Your task to perform on an android device: Do I have any events this weekend? Image 0: 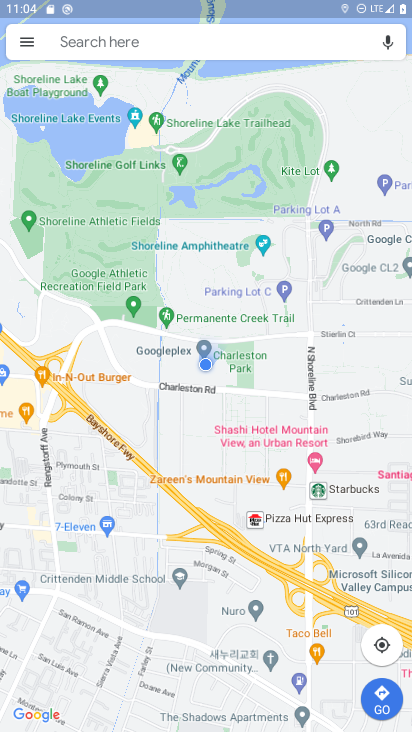
Step 0: press home button
Your task to perform on an android device: Do I have any events this weekend? Image 1: 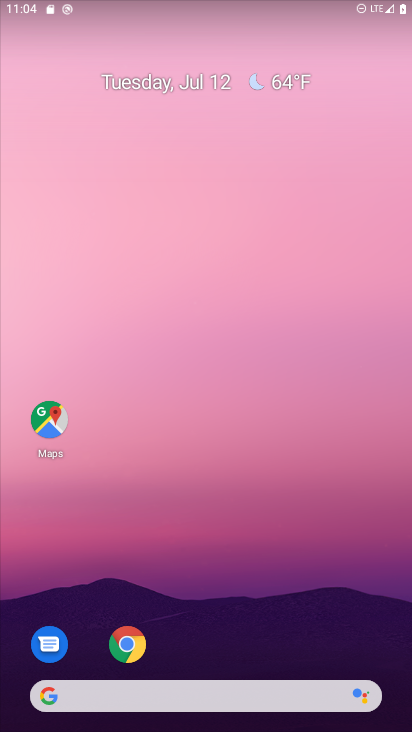
Step 1: drag from (297, 627) to (230, 131)
Your task to perform on an android device: Do I have any events this weekend? Image 2: 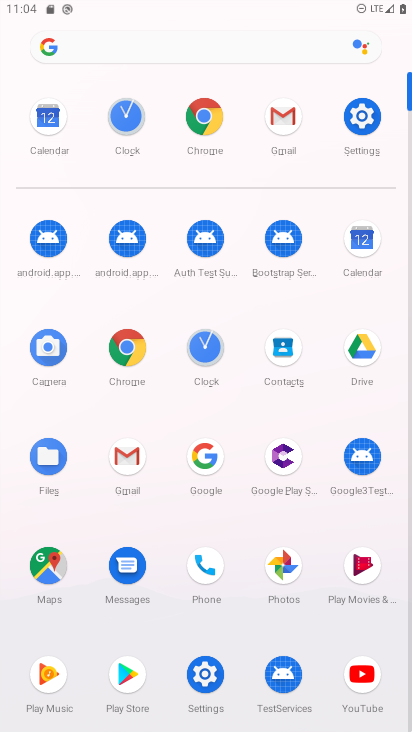
Step 2: click (54, 121)
Your task to perform on an android device: Do I have any events this weekend? Image 3: 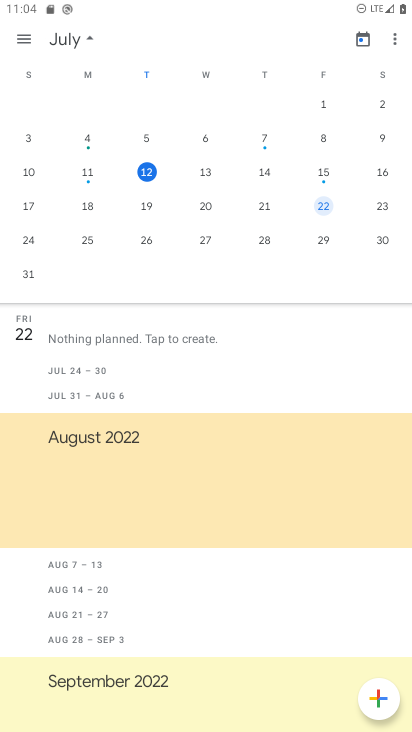
Step 3: task complete